Your task to perform on an android device: install app "Move to iOS" Image 0: 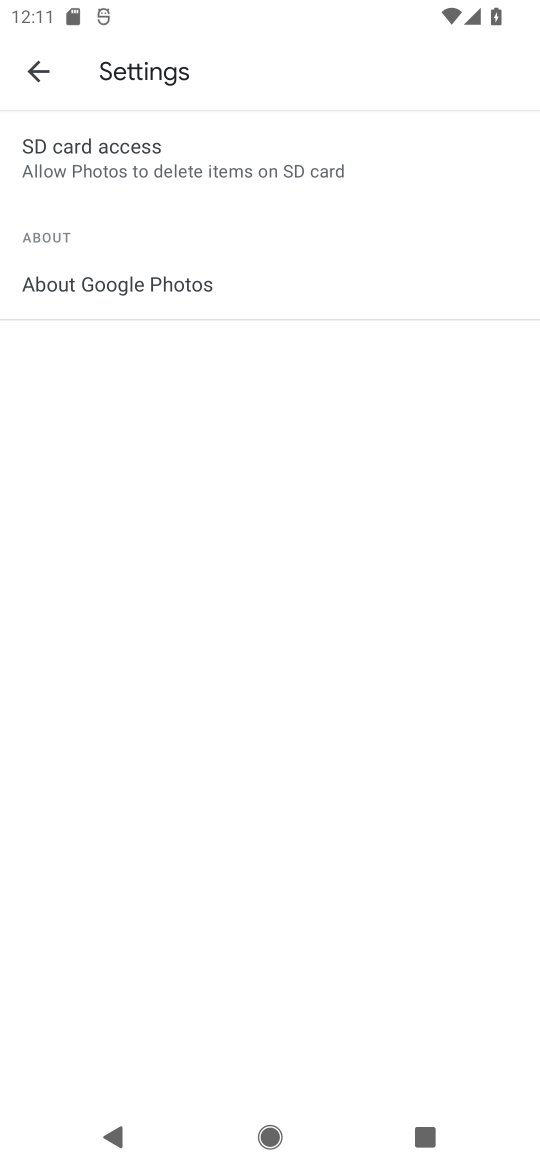
Step 0: press back button
Your task to perform on an android device: install app "Move to iOS" Image 1: 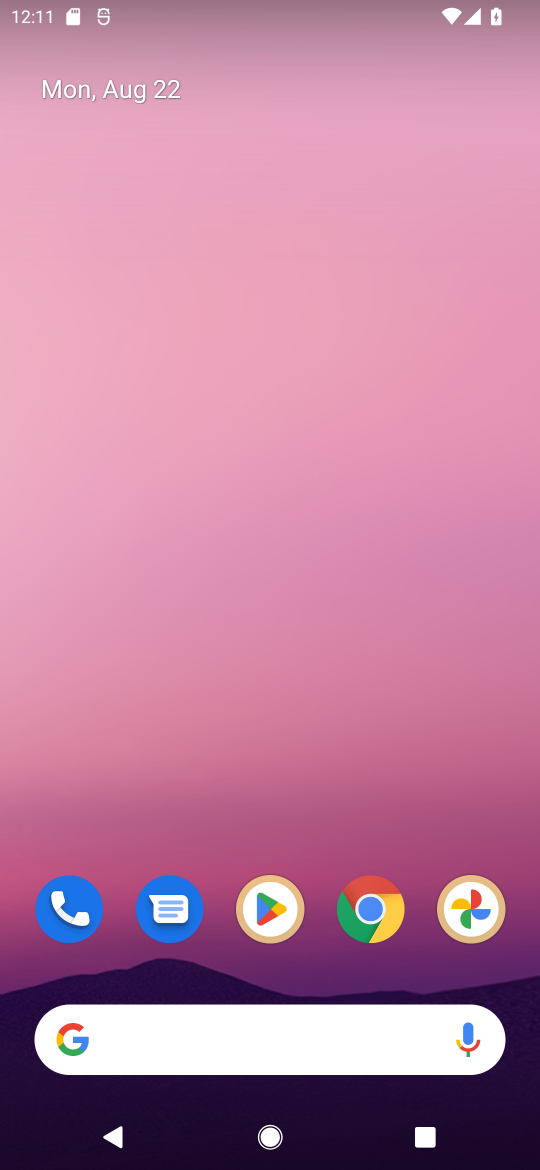
Step 1: click (261, 926)
Your task to perform on an android device: install app "Move to iOS" Image 2: 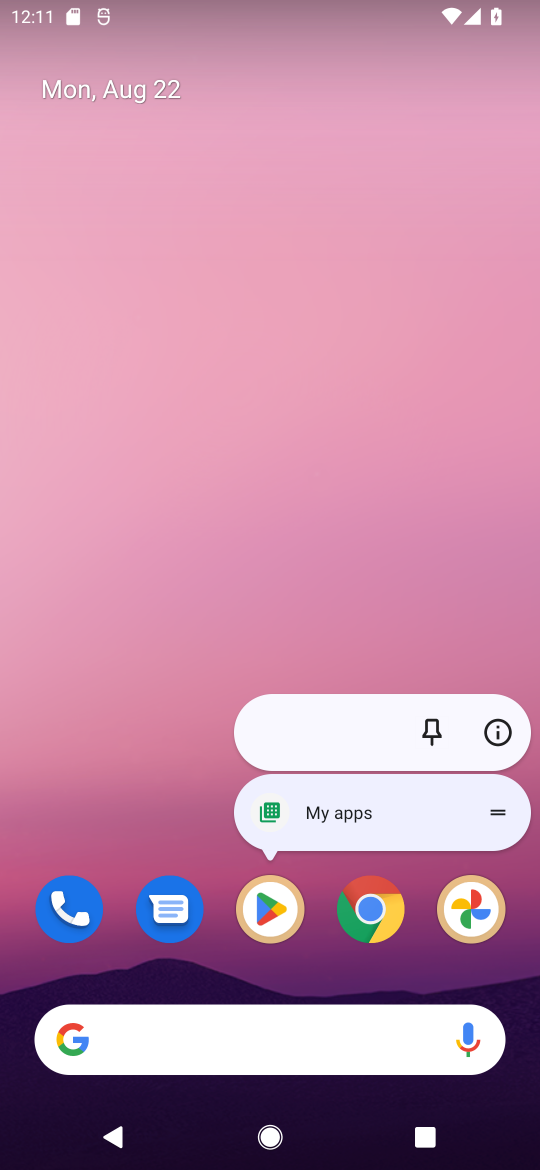
Step 2: click (276, 904)
Your task to perform on an android device: install app "Move to iOS" Image 3: 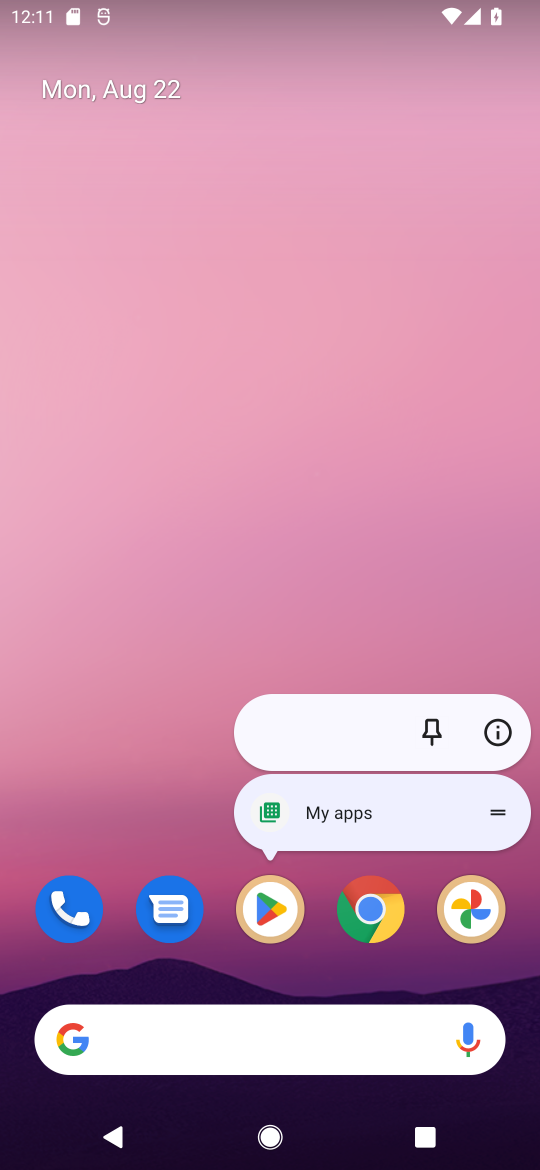
Step 3: click (283, 909)
Your task to perform on an android device: install app "Move to iOS" Image 4: 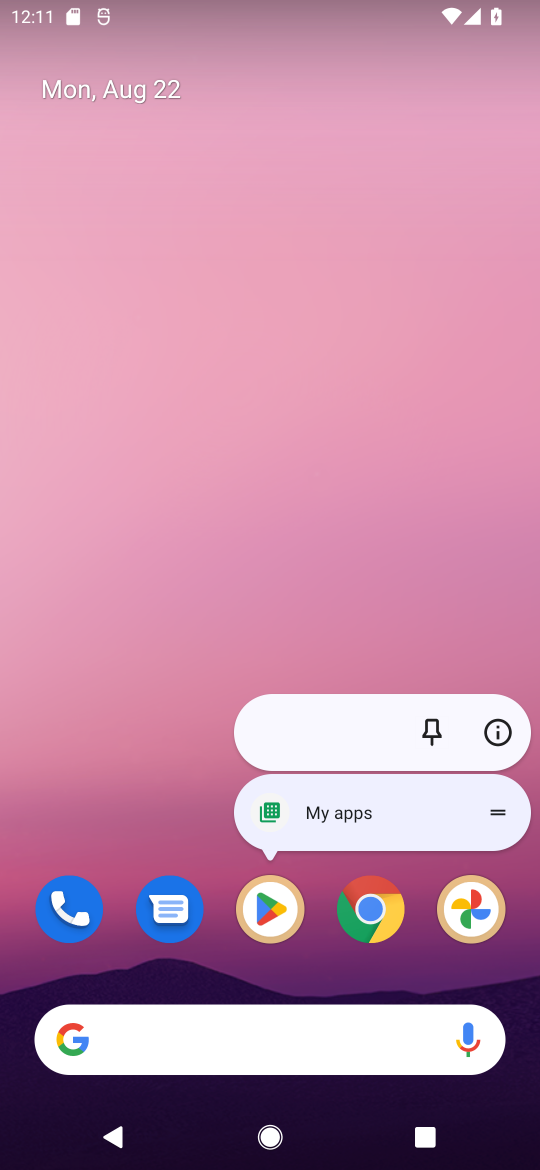
Step 4: click (246, 899)
Your task to perform on an android device: install app "Move to iOS" Image 5: 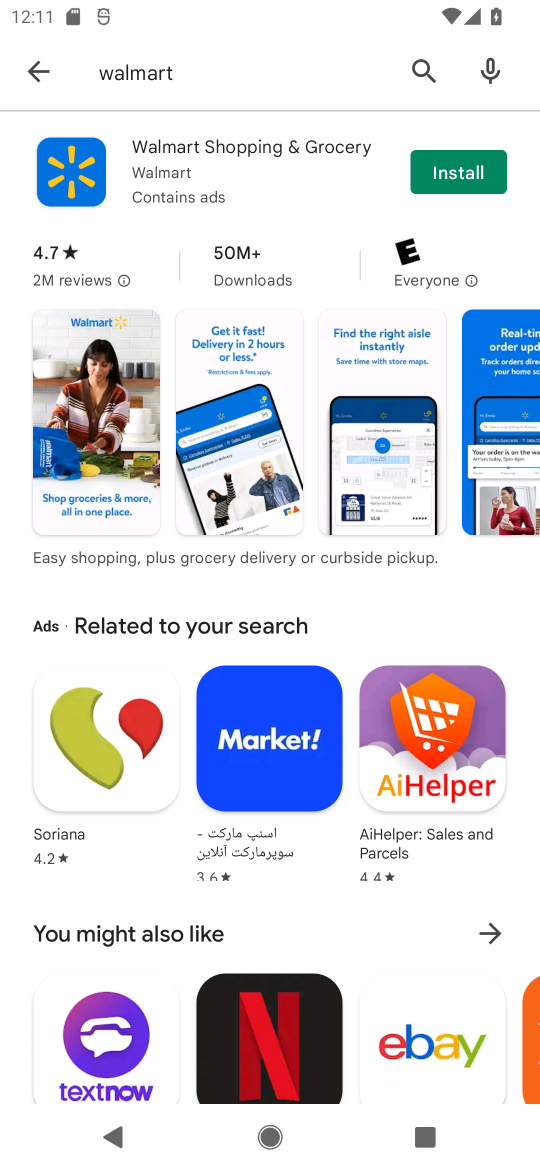
Step 5: click (421, 84)
Your task to perform on an android device: install app "Move to iOS" Image 6: 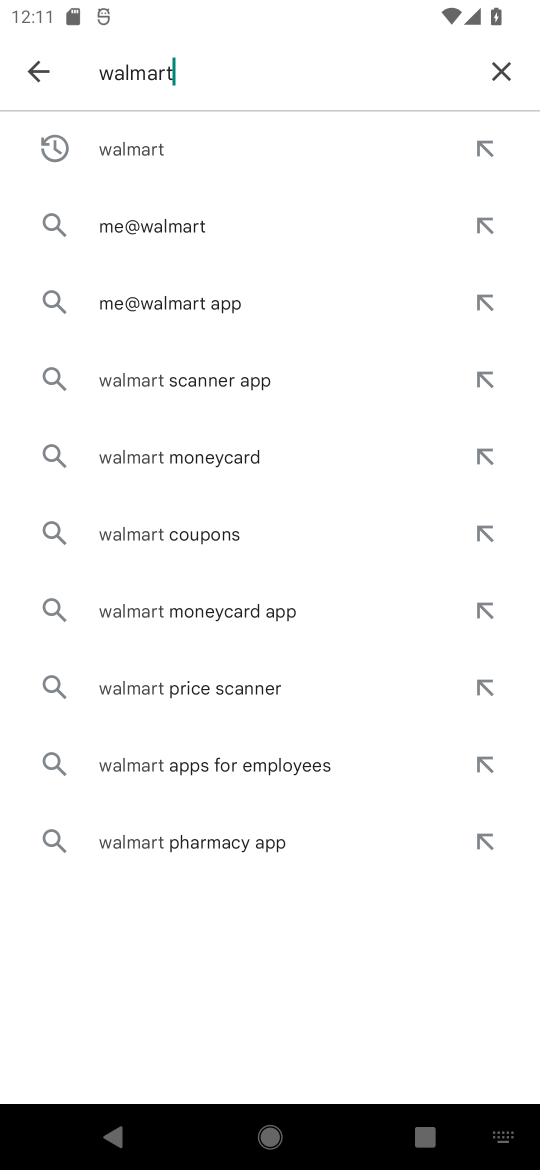
Step 6: click (536, 61)
Your task to perform on an android device: install app "Move to iOS" Image 7: 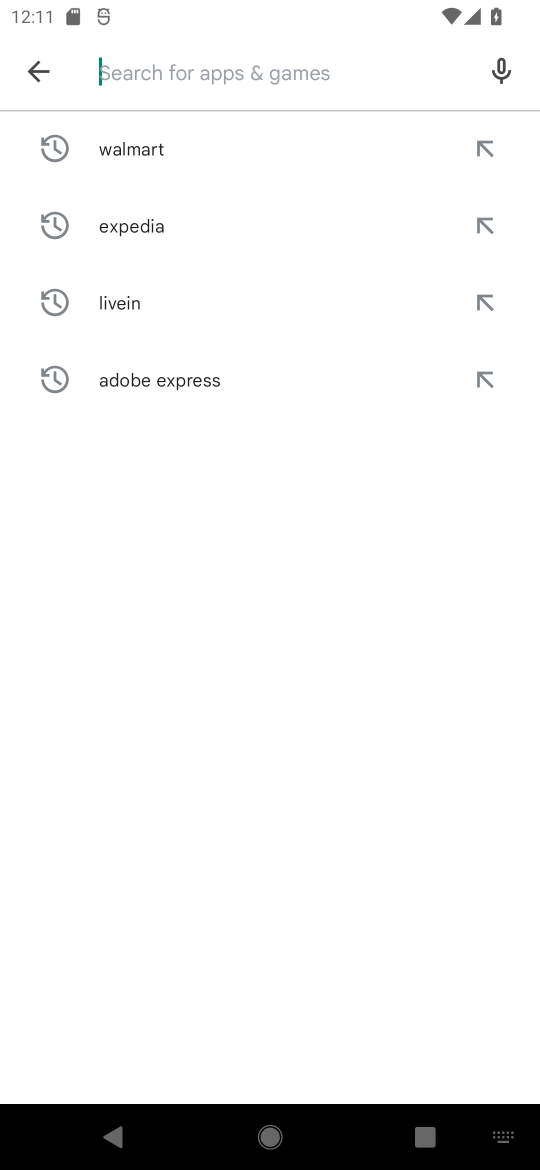
Step 7: click (185, 73)
Your task to perform on an android device: install app "Move to iOS" Image 8: 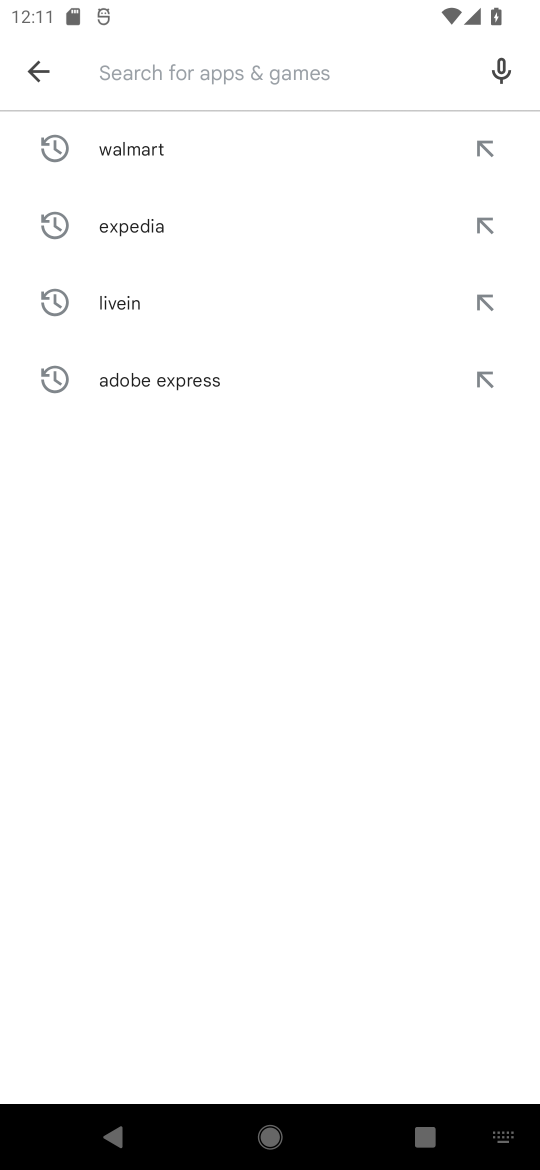
Step 8: type "ios"
Your task to perform on an android device: install app "Move to iOS" Image 9: 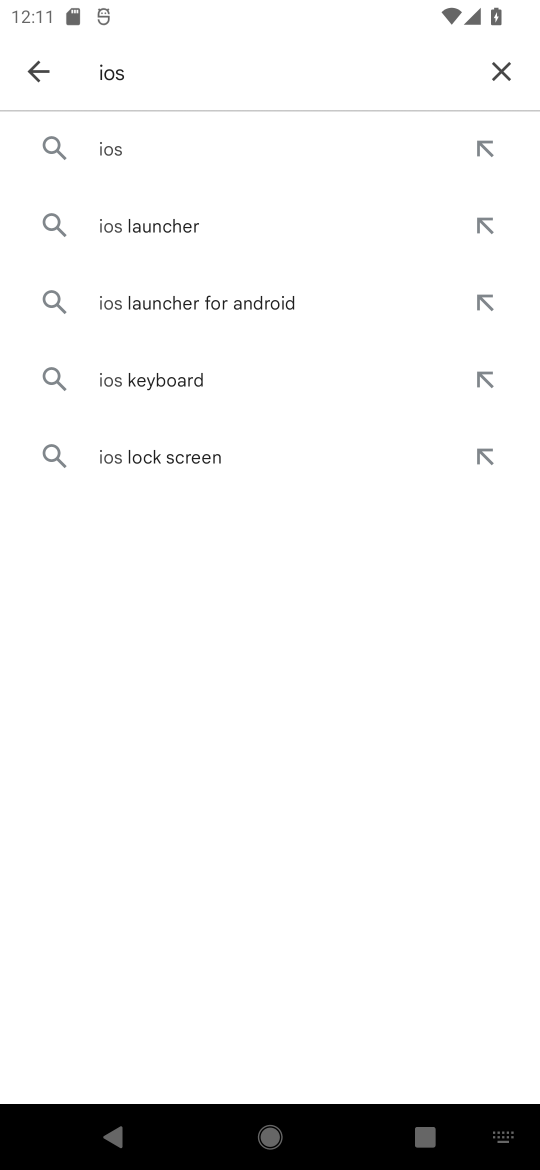
Step 9: click (149, 156)
Your task to perform on an android device: install app "Move to iOS" Image 10: 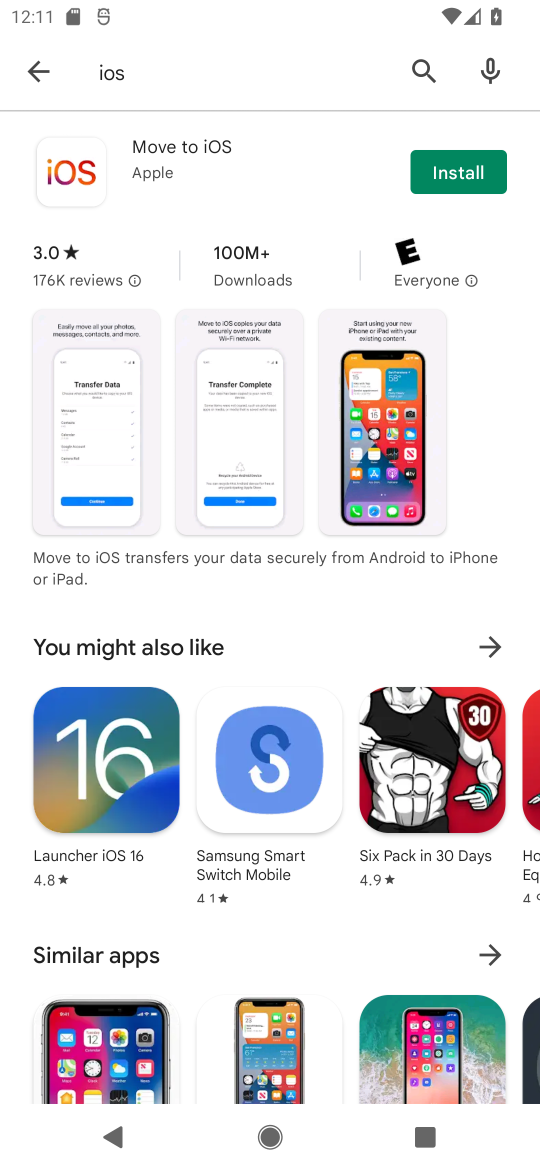
Step 10: click (430, 175)
Your task to perform on an android device: install app "Move to iOS" Image 11: 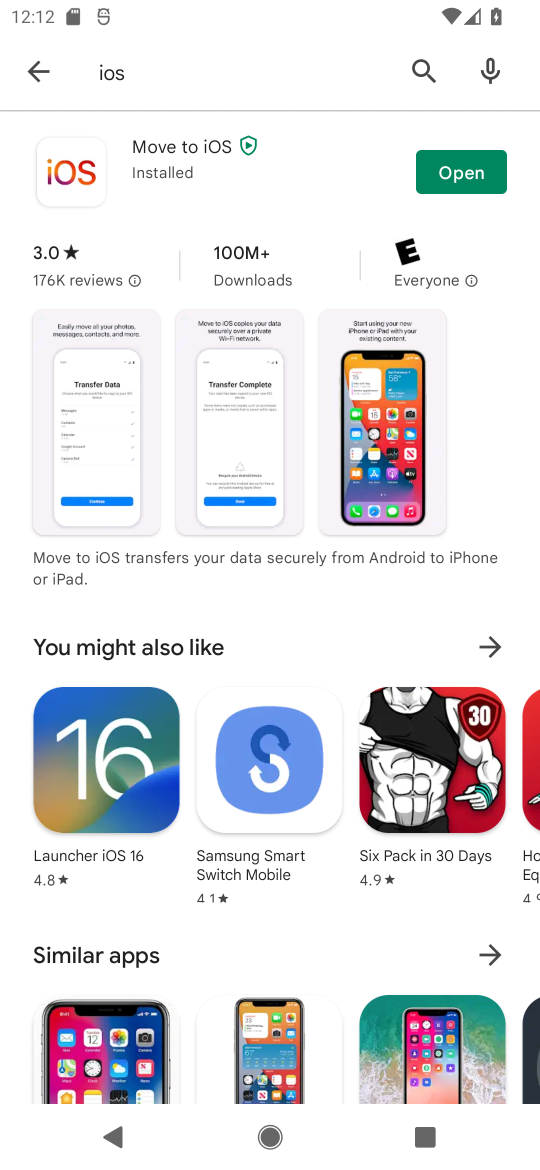
Step 11: task complete